Your task to perform on an android device: Go to battery settings Image 0: 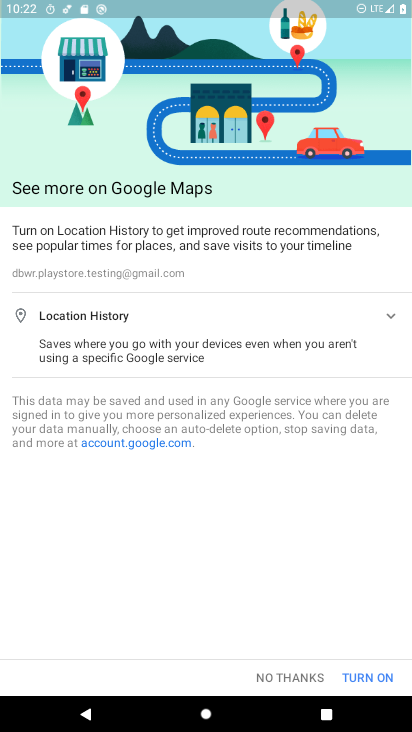
Step 0: press home button
Your task to perform on an android device: Go to battery settings Image 1: 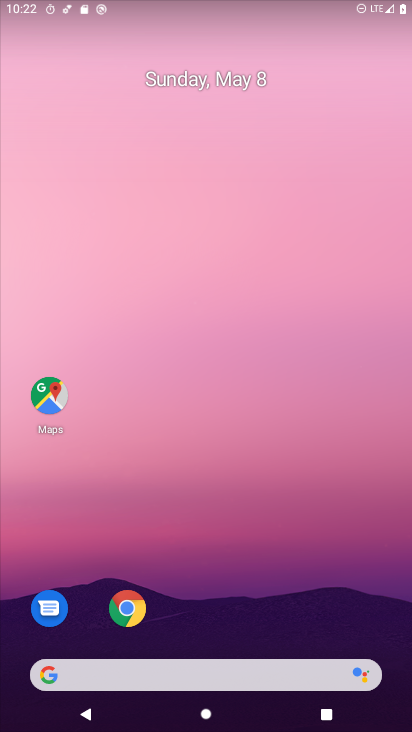
Step 1: drag from (215, 620) to (280, 198)
Your task to perform on an android device: Go to battery settings Image 2: 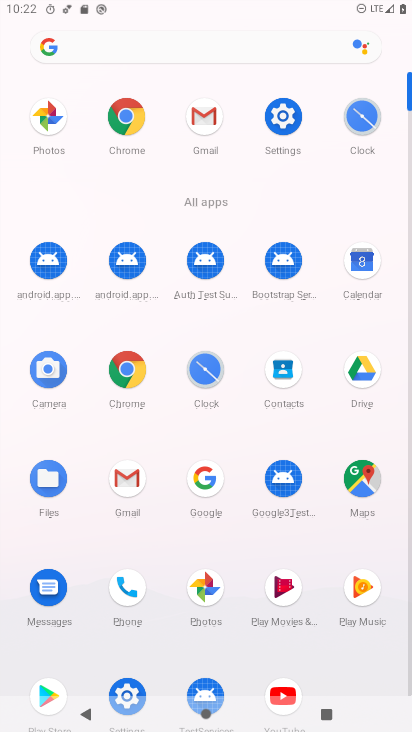
Step 2: click (284, 122)
Your task to perform on an android device: Go to battery settings Image 3: 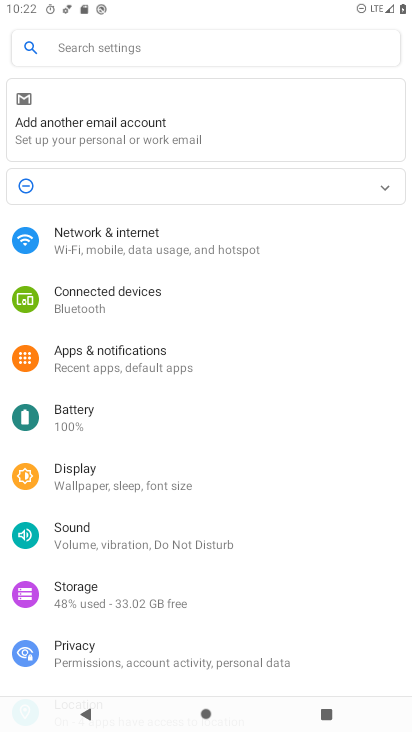
Step 3: drag from (137, 630) to (186, 340)
Your task to perform on an android device: Go to battery settings Image 4: 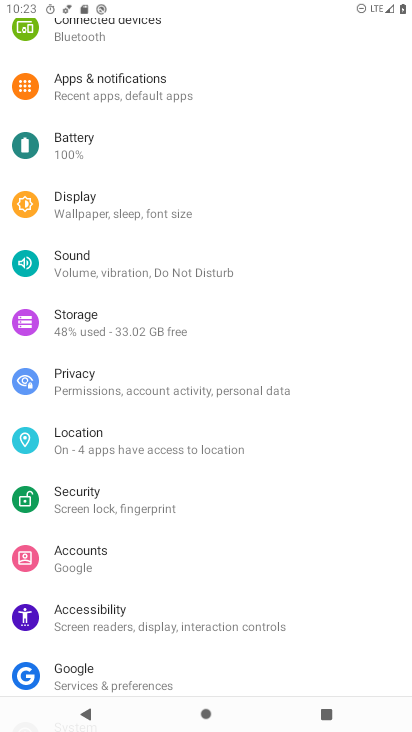
Step 4: click (88, 142)
Your task to perform on an android device: Go to battery settings Image 5: 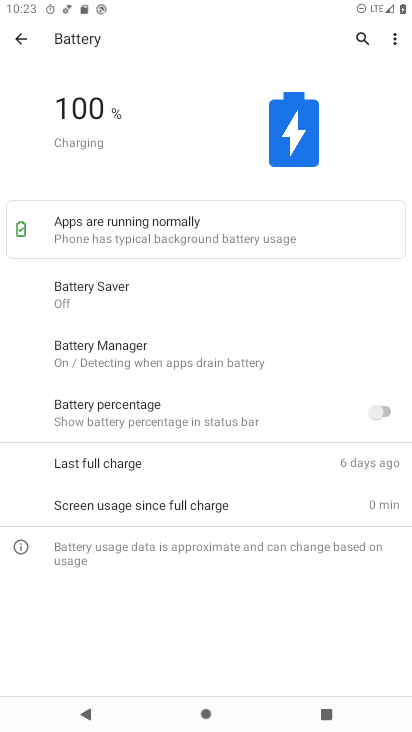
Step 5: task complete